Your task to perform on an android device: Go to Google maps Image 0: 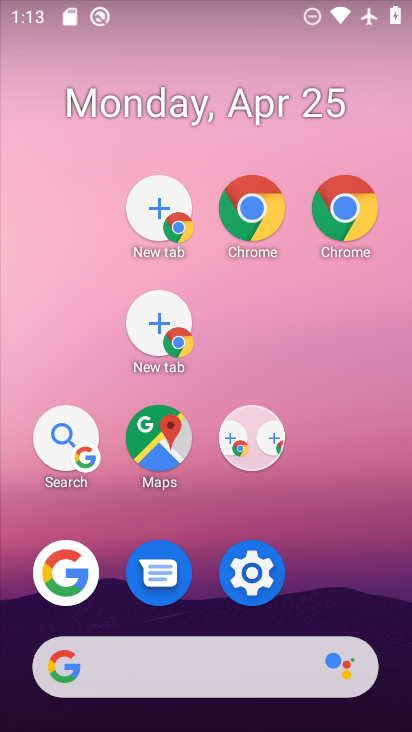
Step 0: drag from (298, 709) to (200, 168)
Your task to perform on an android device: Go to Google maps Image 1: 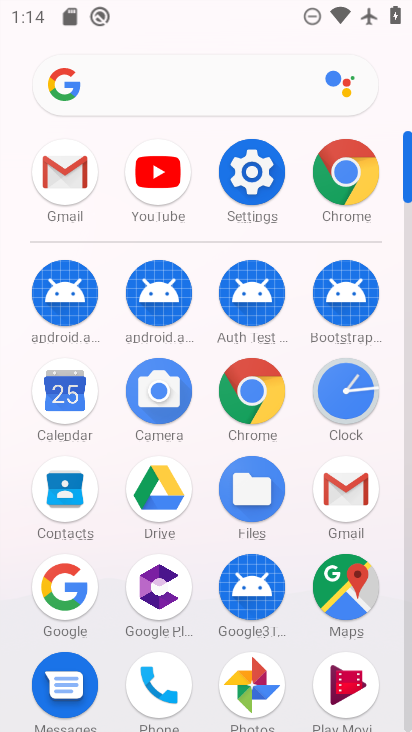
Step 1: click (350, 583)
Your task to perform on an android device: Go to Google maps Image 2: 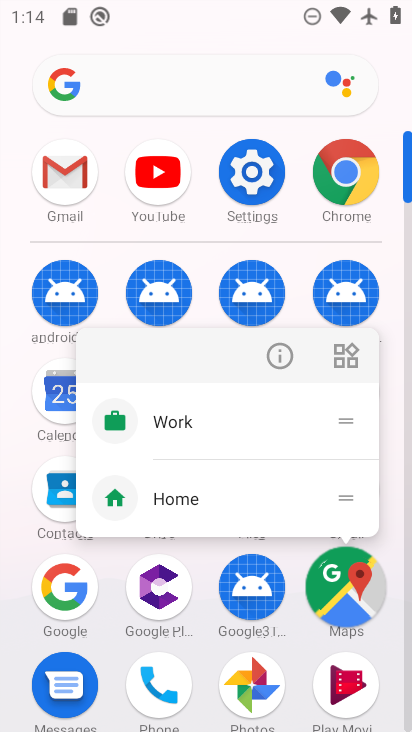
Step 2: click (350, 583)
Your task to perform on an android device: Go to Google maps Image 3: 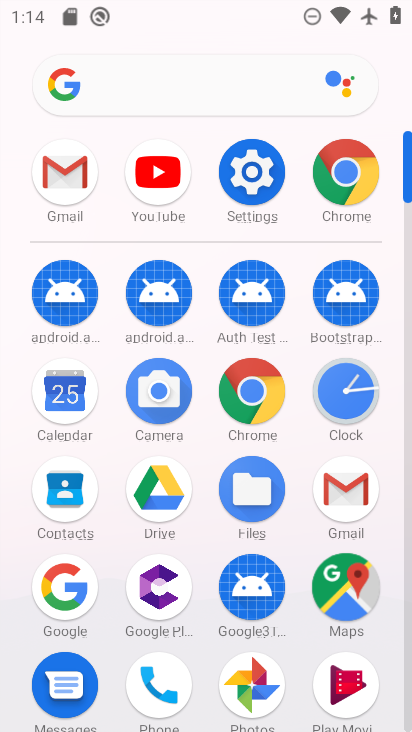
Step 3: click (350, 583)
Your task to perform on an android device: Go to Google maps Image 4: 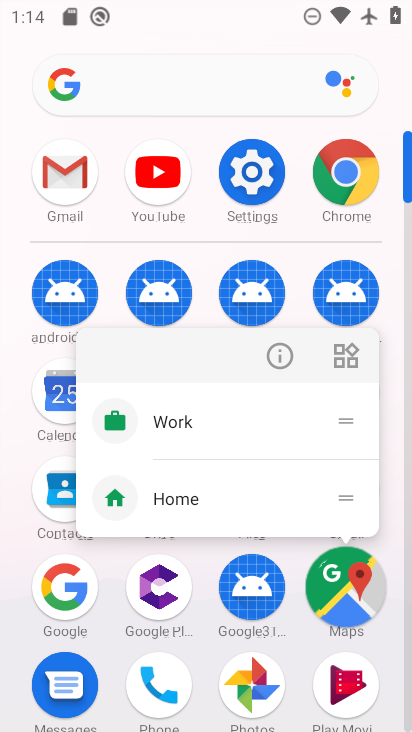
Step 4: click (350, 583)
Your task to perform on an android device: Go to Google maps Image 5: 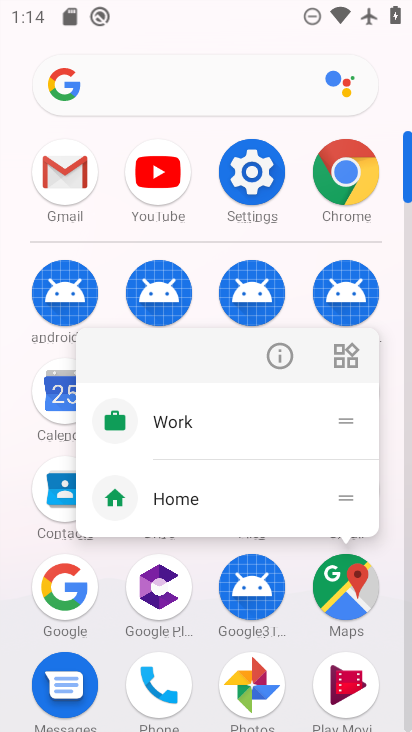
Step 5: click (350, 583)
Your task to perform on an android device: Go to Google maps Image 6: 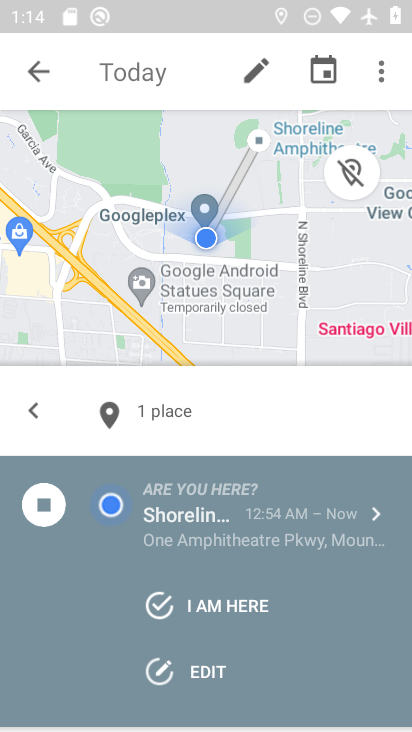
Step 6: click (117, 73)
Your task to perform on an android device: Go to Google maps Image 7: 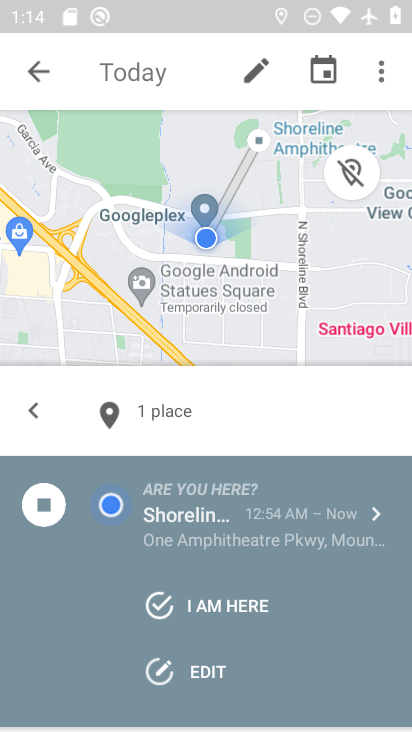
Step 7: task complete